Your task to perform on an android device: Turn off the flashlight Image 0: 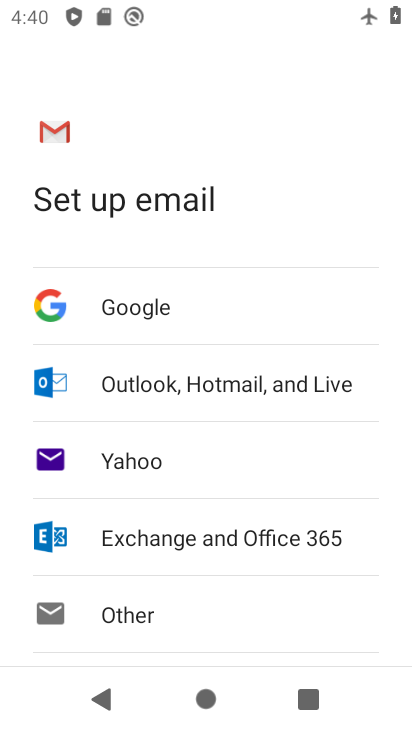
Step 0: press home button
Your task to perform on an android device: Turn off the flashlight Image 1: 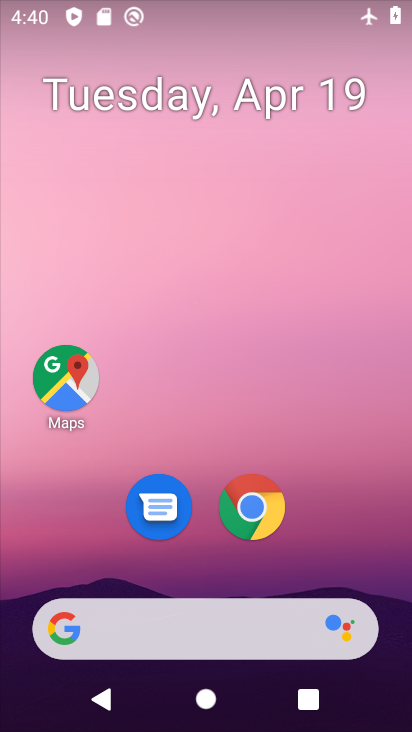
Step 1: task complete